Your task to perform on an android device: set the timer Image 0: 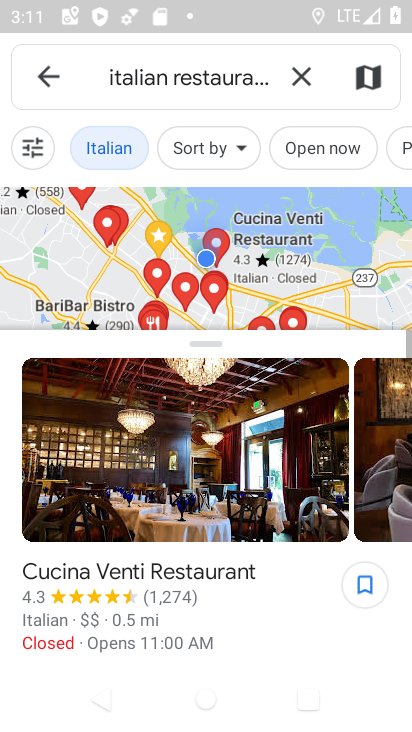
Step 0: press home button
Your task to perform on an android device: set the timer Image 1: 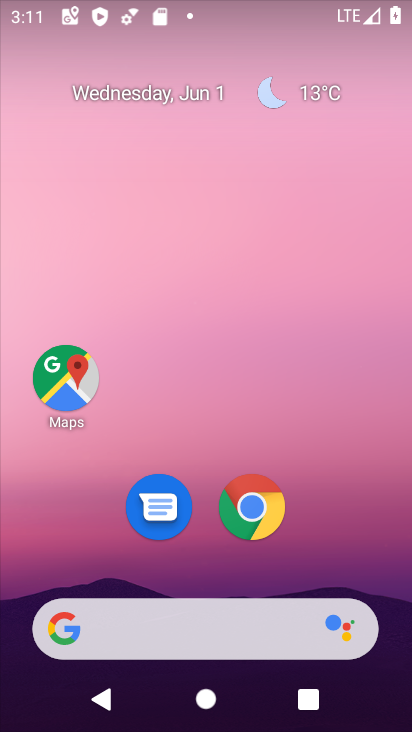
Step 1: drag from (342, 542) to (150, 144)
Your task to perform on an android device: set the timer Image 2: 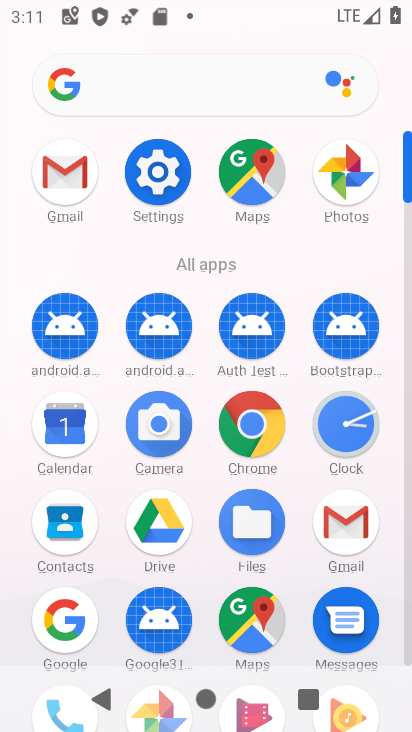
Step 2: click (370, 438)
Your task to perform on an android device: set the timer Image 3: 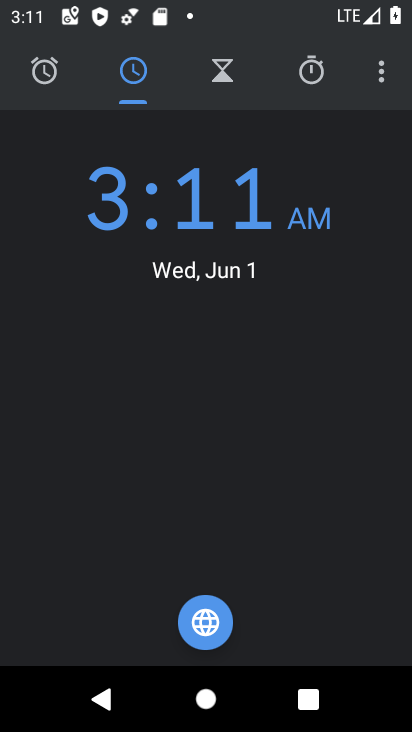
Step 3: click (221, 73)
Your task to perform on an android device: set the timer Image 4: 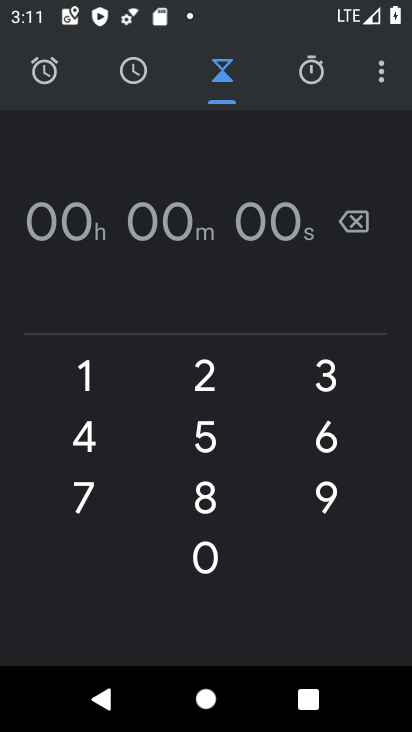
Step 4: click (191, 442)
Your task to perform on an android device: set the timer Image 5: 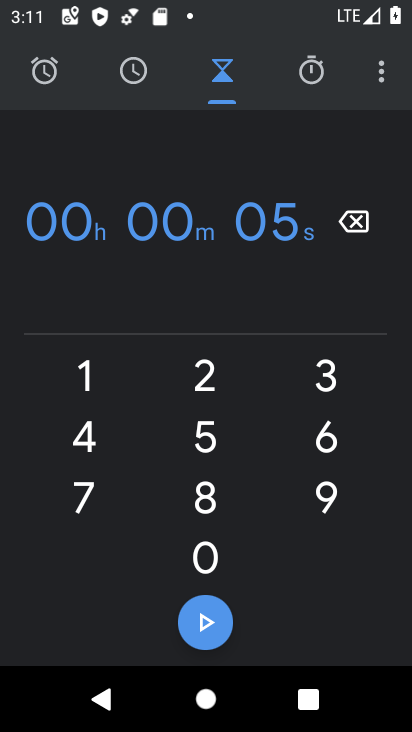
Step 5: click (99, 436)
Your task to perform on an android device: set the timer Image 6: 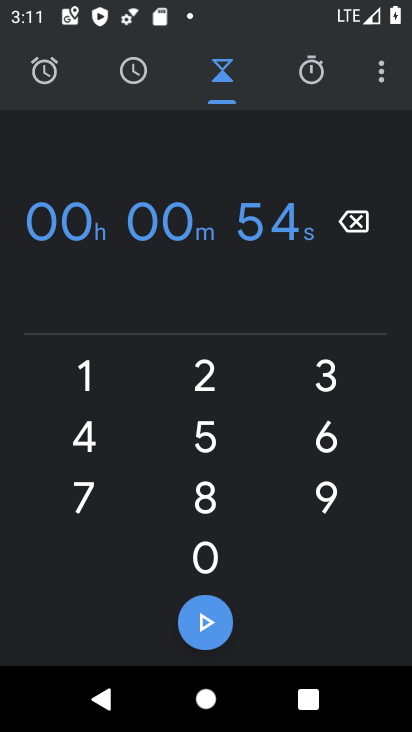
Step 6: click (326, 501)
Your task to perform on an android device: set the timer Image 7: 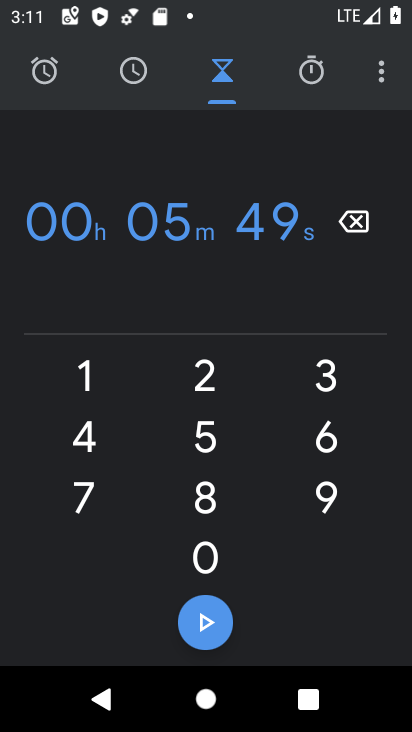
Step 7: click (224, 488)
Your task to perform on an android device: set the timer Image 8: 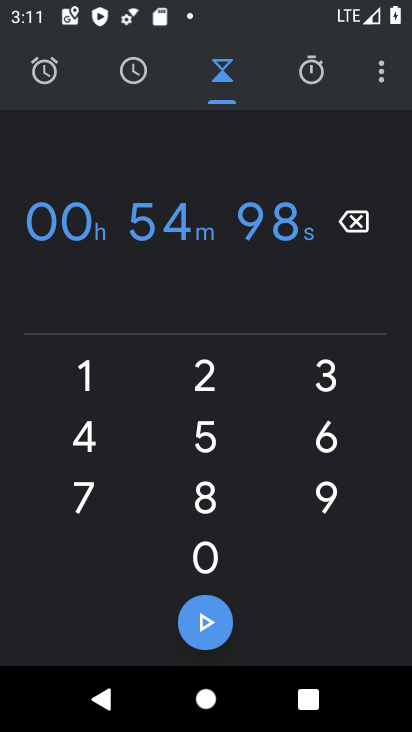
Step 8: click (209, 572)
Your task to perform on an android device: set the timer Image 9: 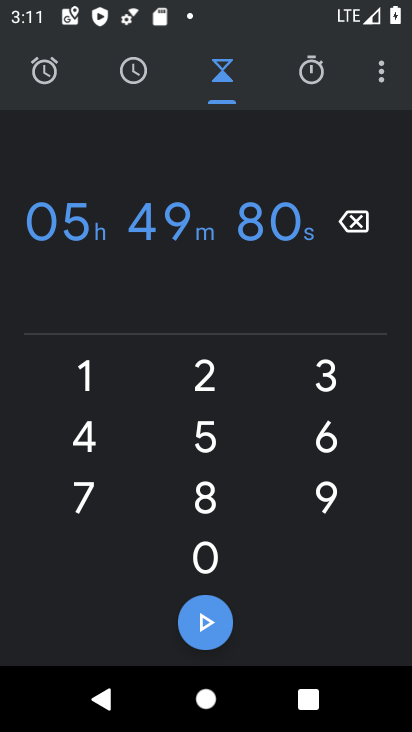
Step 9: click (211, 627)
Your task to perform on an android device: set the timer Image 10: 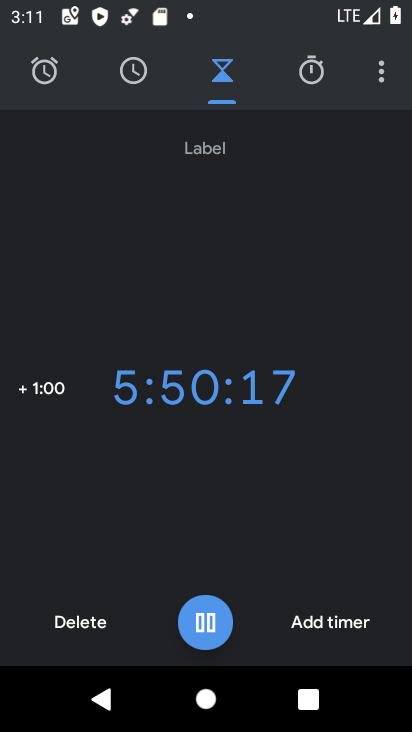
Step 10: click (322, 626)
Your task to perform on an android device: set the timer Image 11: 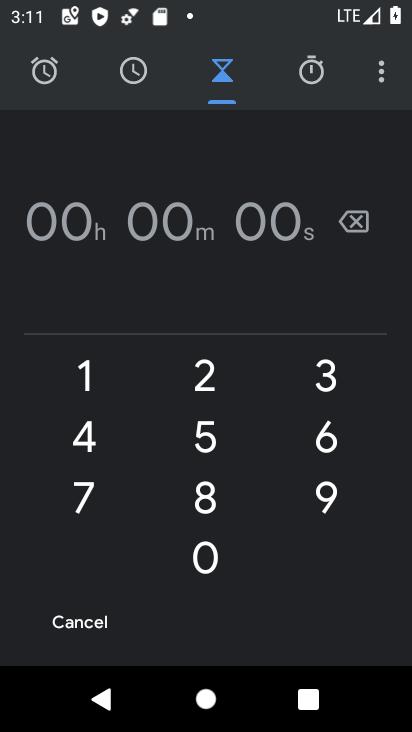
Step 11: task complete